Your task to perform on an android device: check data usage Image 0: 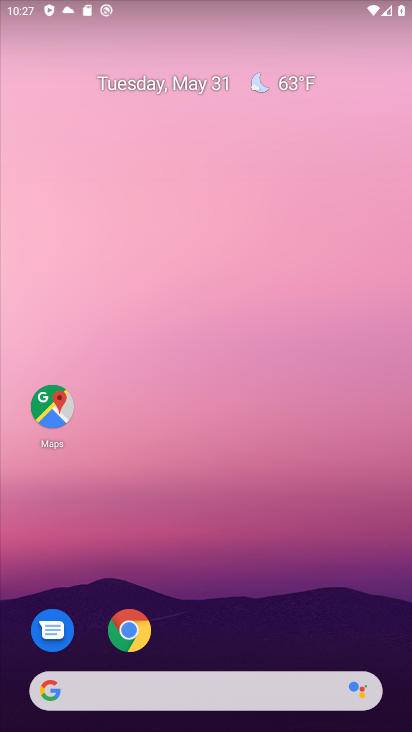
Step 0: click (134, 632)
Your task to perform on an android device: check data usage Image 1: 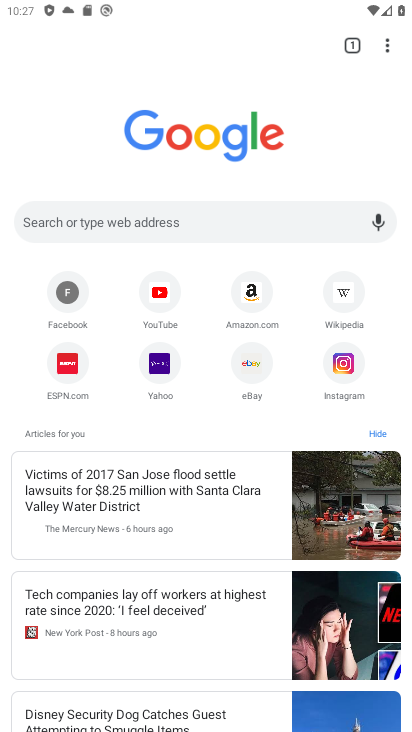
Step 1: press home button
Your task to perform on an android device: check data usage Image 2: 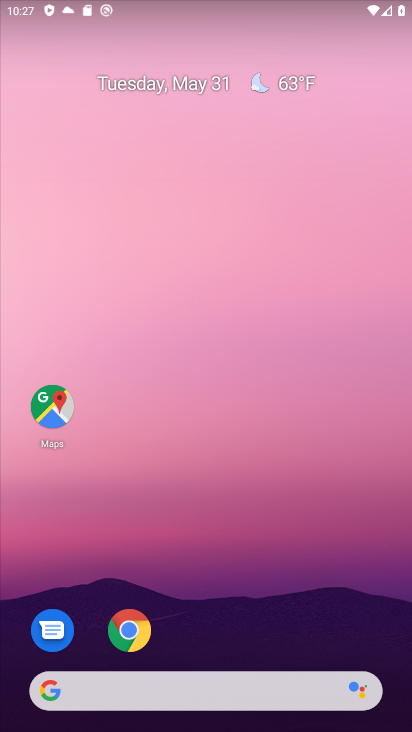
Step 2: drag from (208, 642) to (185, 218)
Your task to perform on an android device: check data usage Image 3: 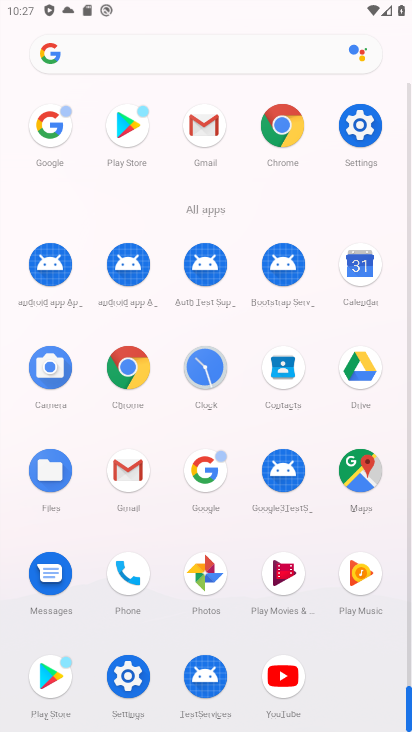
Step 3: click (360, 134)
Your task to perform on an android device: check data usage Image 4: 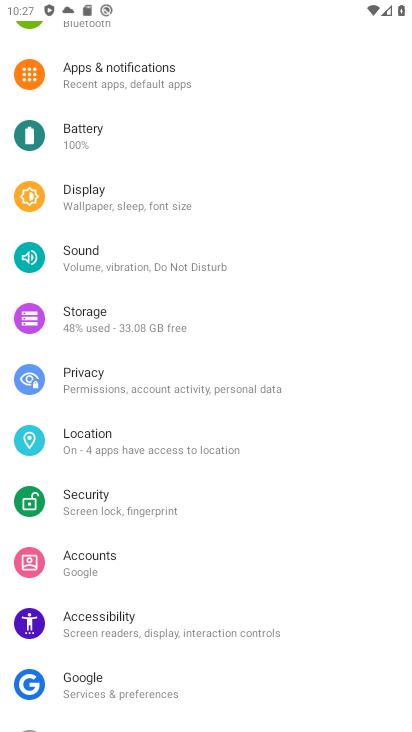
Step 4: drag from (176, 112) to (150, 532)
Your task to perform on an android device: check data usage Image 5: 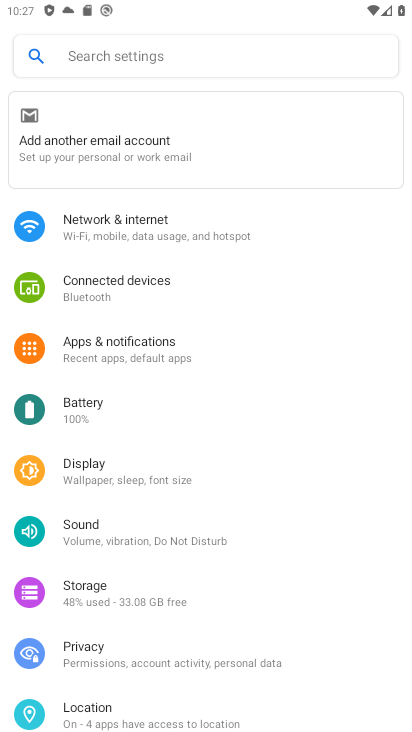
Step 5: click (153, 234)
Your task to perform on an android device: check data usage Image 6: 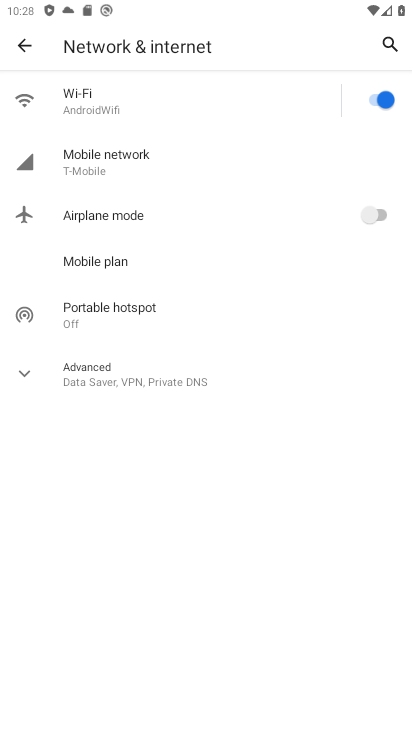
Step 6: click (130, 165)
Your task to perform on an android device: check data usage Image 7: 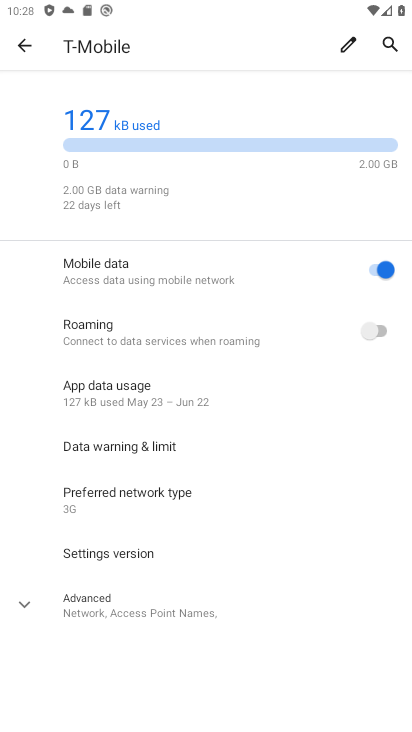
Step 7: task complete